Your task to perform on an android device: turn on the 24-hour format for clock Image 0: 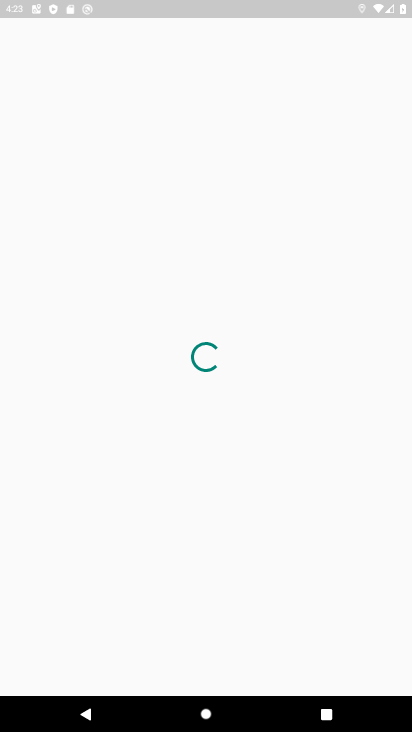
Step 0: press home button
Your task to perform on an android device: turn on the 24-hour format for clock Image 1: 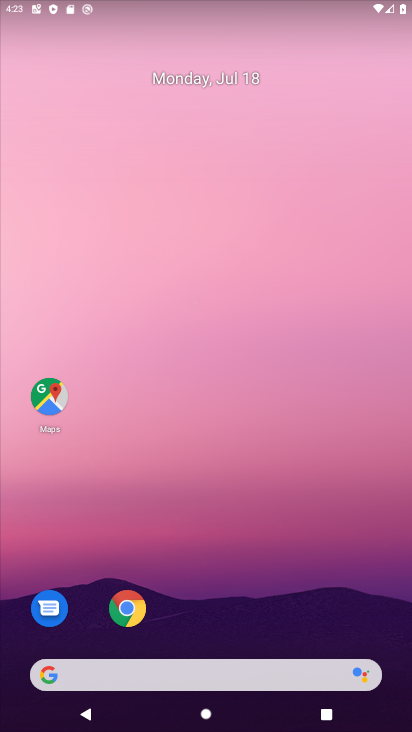
Step 1: drag from (275, 618) to (247, 29)
Your task to perform on an android device: turn on the 24-hour format for clock Image 2: 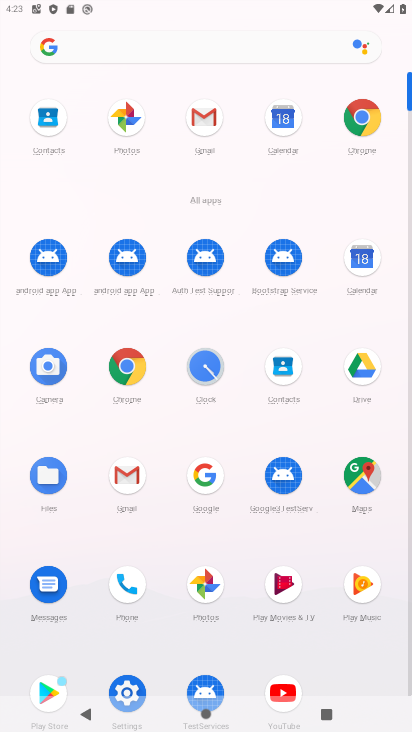
Step 2: click (189, 367)
Your task to perform on an android device: turn on the 24-hour format for clock Image 3: 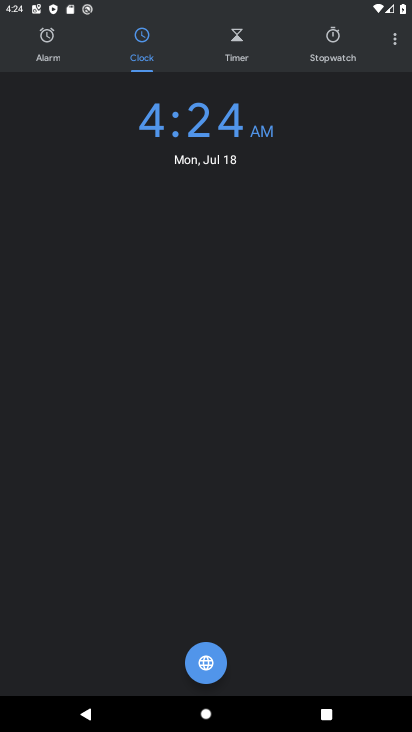
Step 3: click (401, 31)
Your task to perform on an android device: turn on the 24-hour format for clock Image 4: 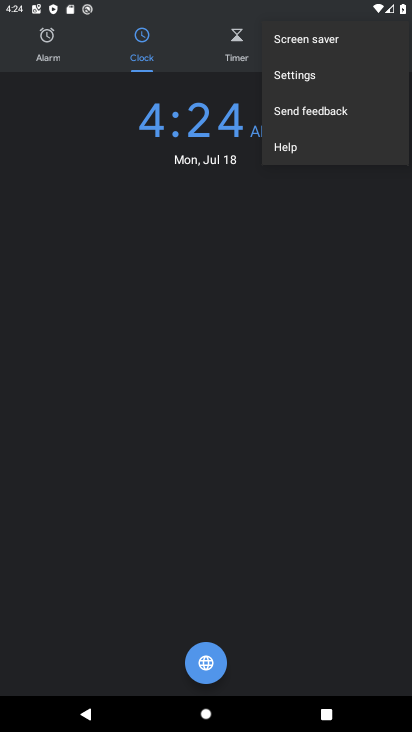
Step 4: click (300, 83)
Your task to perform on an android device: turn on the 24-hour format for clock Image 5: 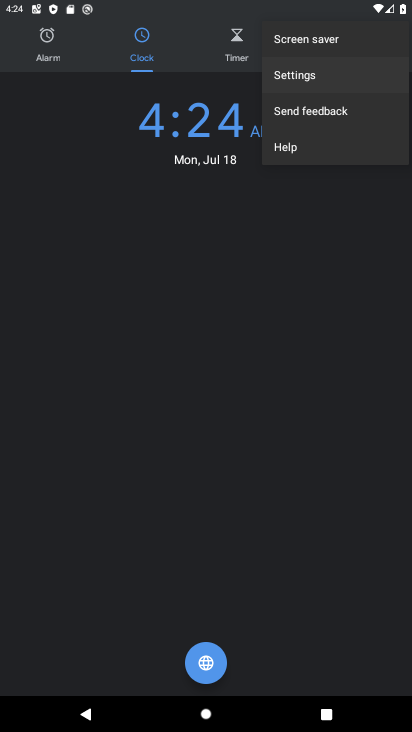
Step 5: click (300, 83)
Your task to perform on an android device: turn on the 24-hour format for clock Image 6: 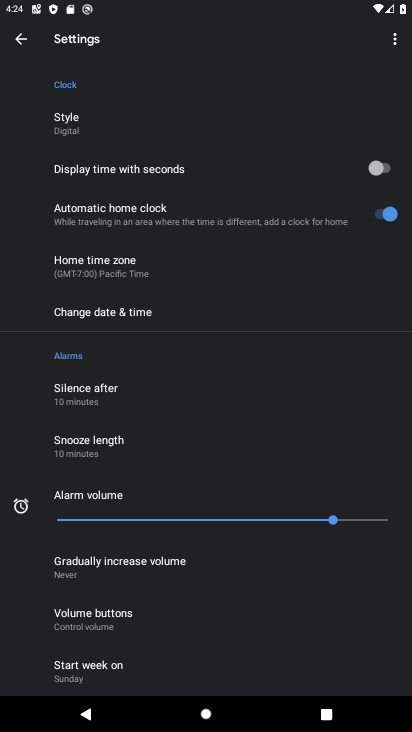
Step 6: click (160, 319)
Your task to perform on an android device: turn on the 24-hour format for clock Image 7: 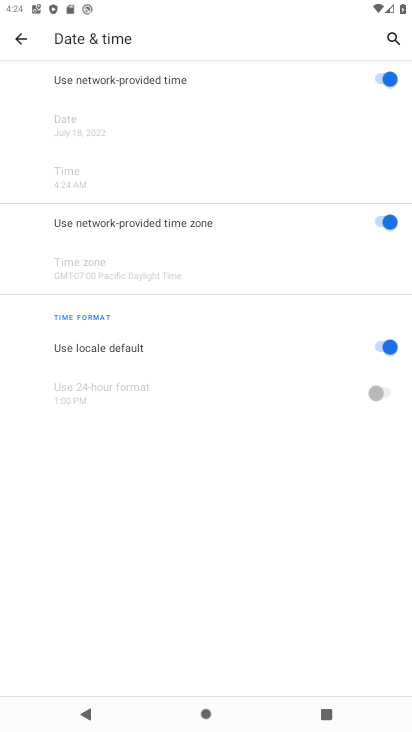
Step 7: click (393, 342)
Your task to perform on an android device: turn on the 24-hour format for clock Image 8: 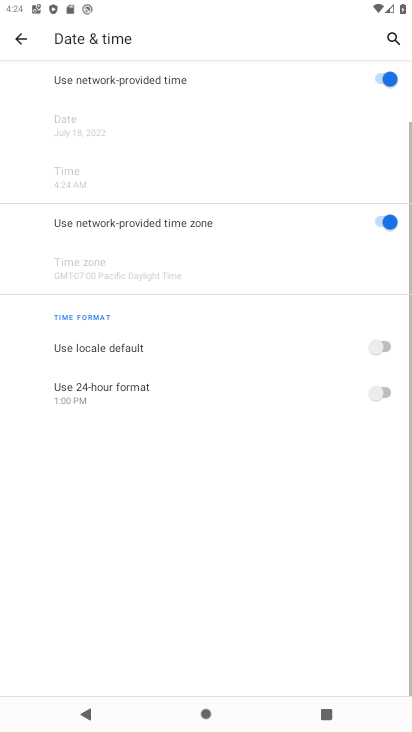
Step 8: click (379, 399)
Your task to perform on an android device: turn on the 24-hour format for clock Image 9: 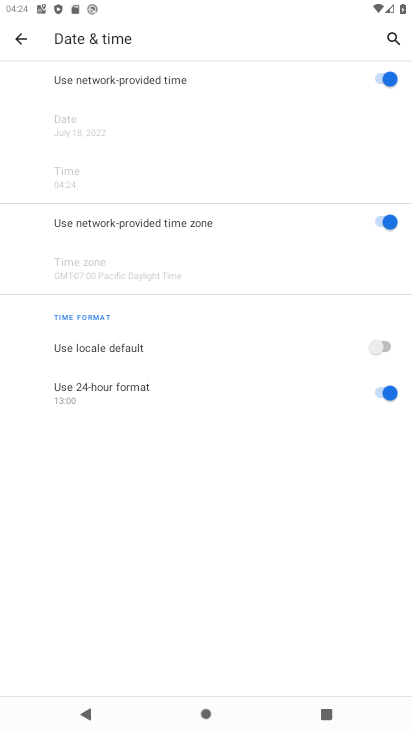
Step 9: task complete